Your task to perform on an android device: Open display settings Image 0: 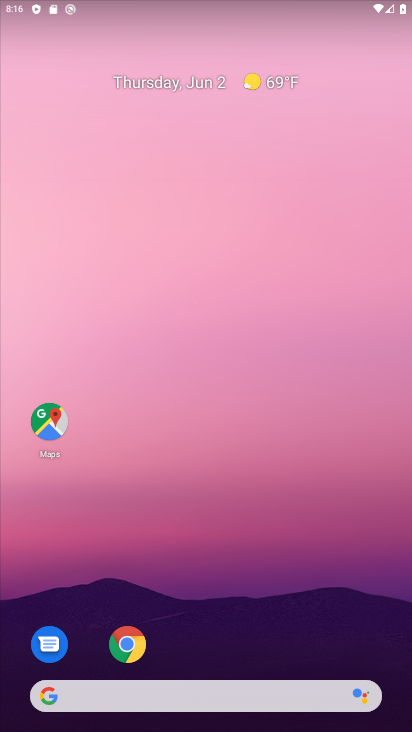
Step 0: drag from (221, 526) to (146, 47)
Your task to perform on an android device: Open display settings Image 1: 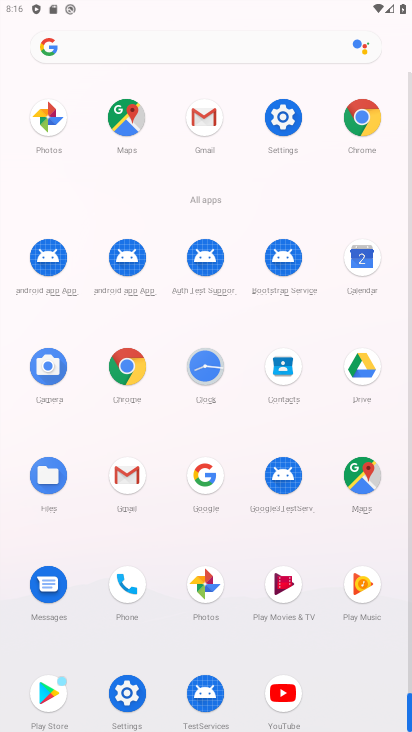
Step 1: drag from (20, 537) to (14, 186)
Your task to perform on an android device: Open display settings Image 2: 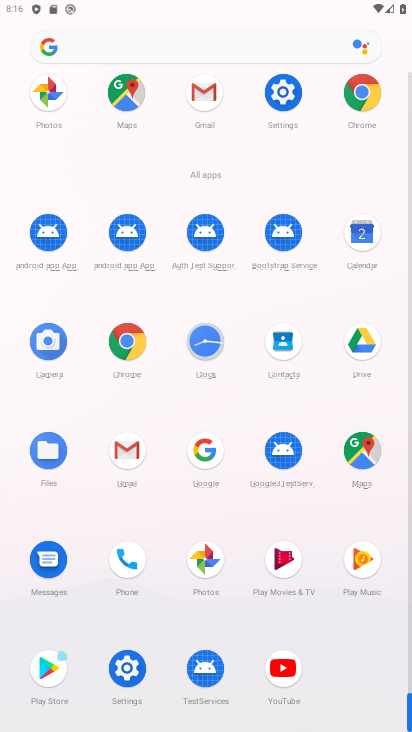
Step 2: click (126, 667)
Your task to perform on an android device: Open display settings Image 3: 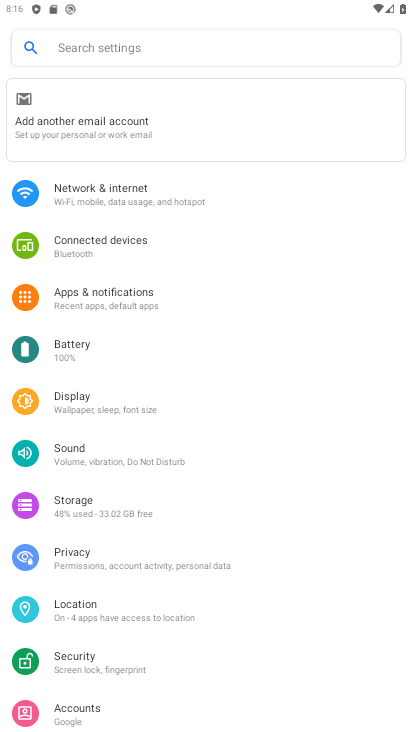
Step 3: click (96, 392)
Your task to perform on an android device: Open display settings Image 4: 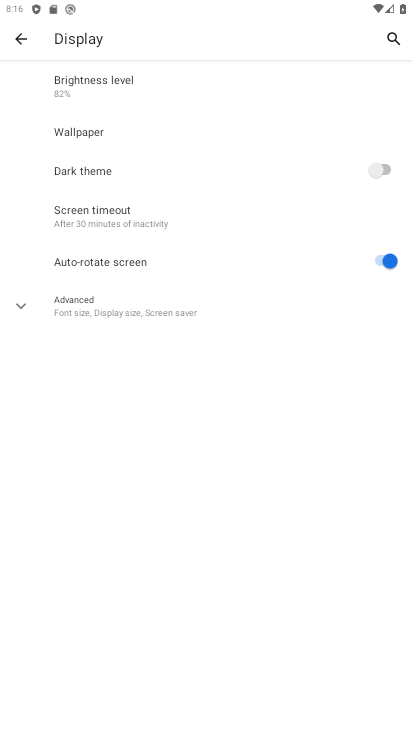
Step 4: click (28, 295)
Your task to perform on an android device: Open display settings Image 5: 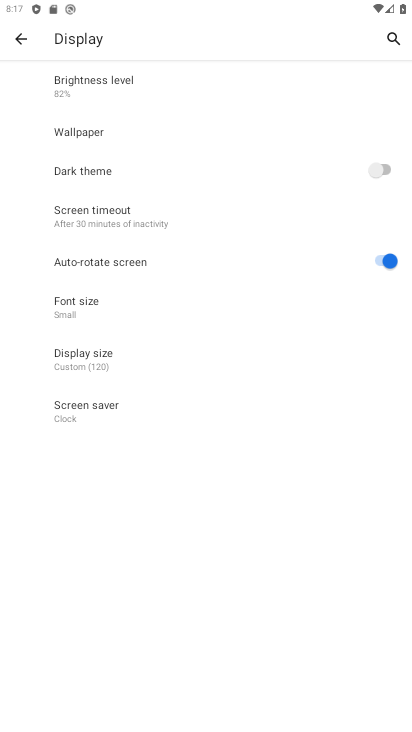
Step 5: task complete